Your task to perform on an android device: toggle improve location accuracy Image 0: 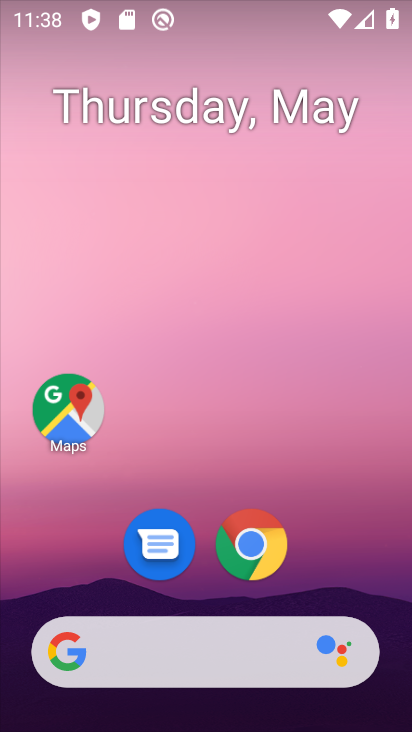
Step 0: drag from (211, 579) to (271, 187)
Your task to perform on an android device: toggle improve location accuracy Image 1: 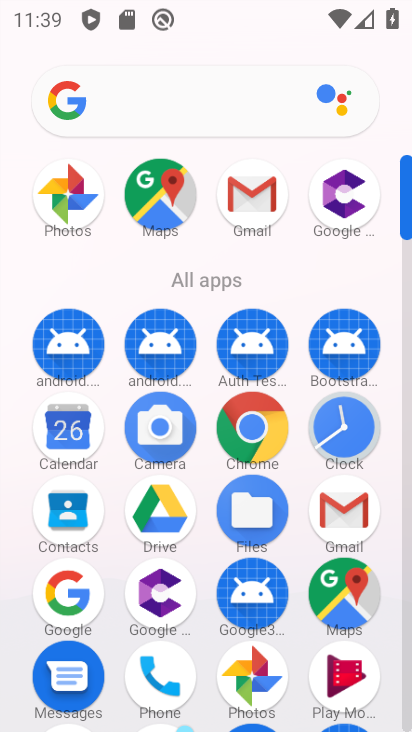
Step 1: drag from (210, 559) to (225, 140)
Your task to perform on an android device: toggle improve location accuracy Image 2: 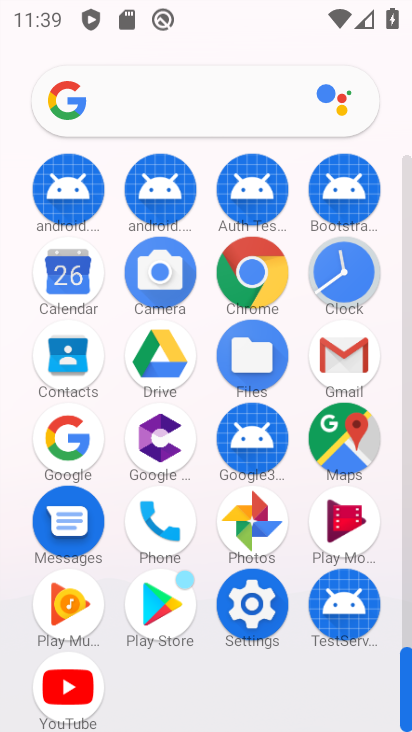
Step 2: click (252, 626)
Your task to perform on an android device: toggle improve location accuracy Image 3: 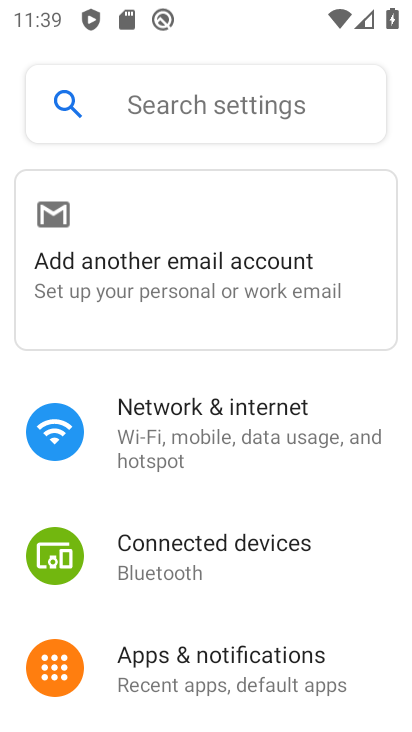
Step 3: drag from (231, 573) to (308, 148)
Your task to perform on an android device: toggle improve location accuracy Image 4: 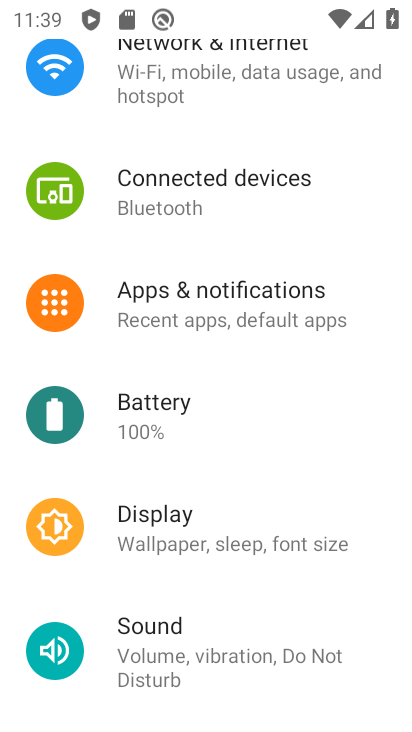
Step 4: drag from (218, 475) to (295, 15)
Your task to perform on an android device: toggle improve location accuracy Image 5: 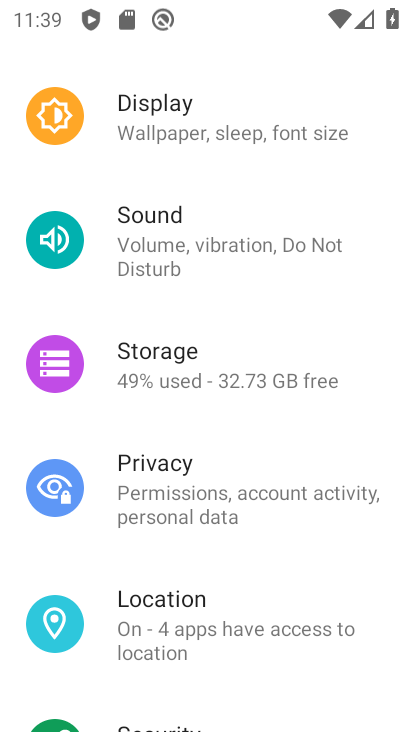
Step 5: click (196, 615)
Your task to perform on an android device: toggle improve location accuracy Image 6: 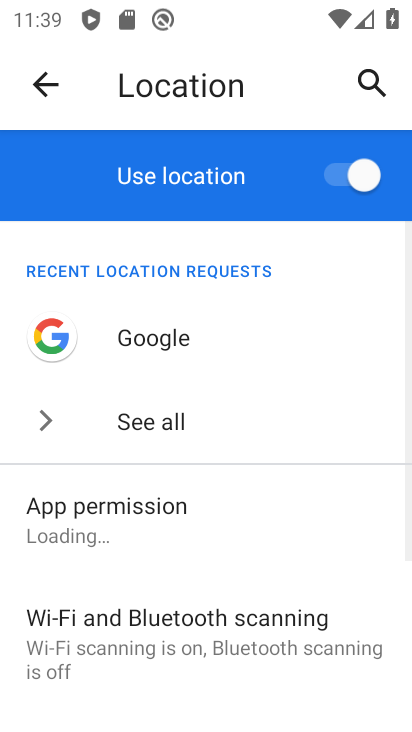
Step 6: drag from (166, 644) to (192, 131)
Your task to perform on an android device: toggle improve location accuracy Image 7: 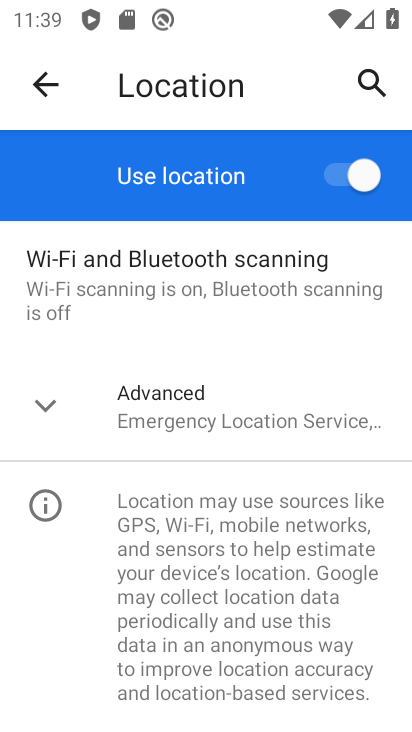
Step 7: click (145, 417)
Your task to perform on an android device: toggle improve location accuracy Image 8: 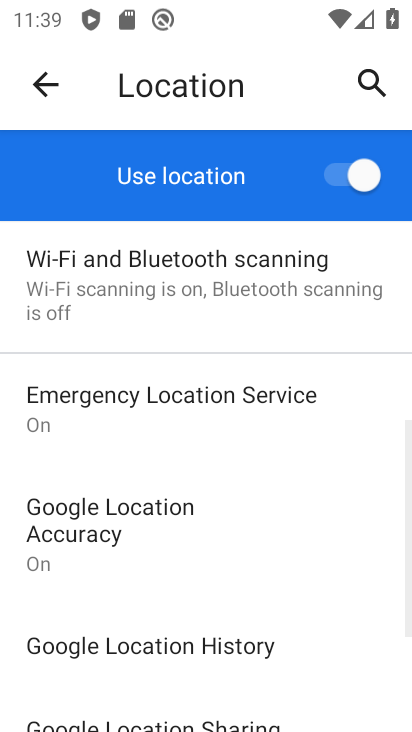
Step 8: click (99, 517)
Your task to perform on an android device: toggle improve location accuracy Image 9: 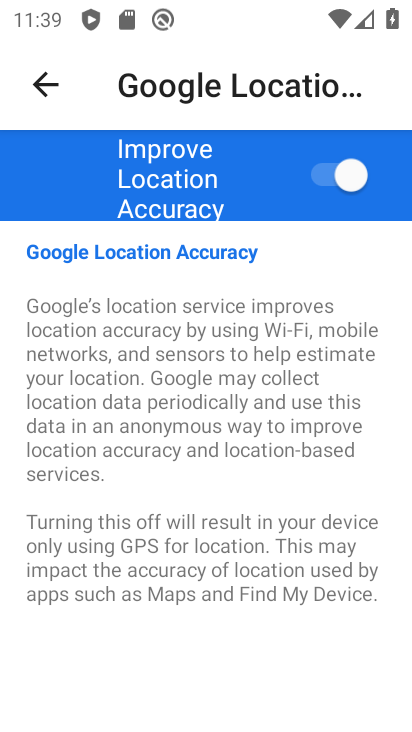
Step 9: click (344, 171)
Your task to perform on an android device: toggle improve location accuracy Image 10: 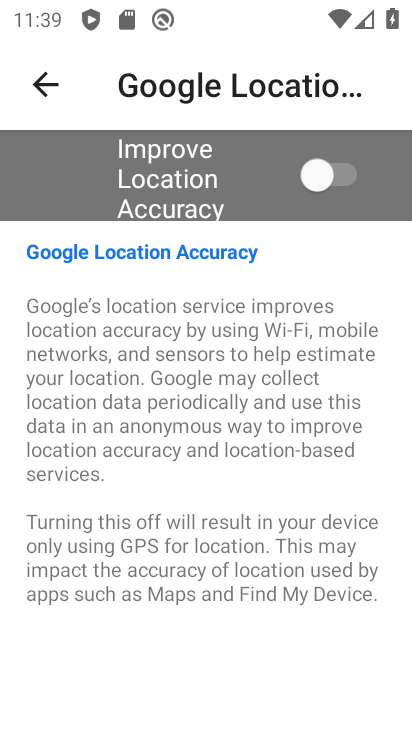
Step 10: task complete